Your task to perform on an android device: delete browsing data in the chrome app Image 0: 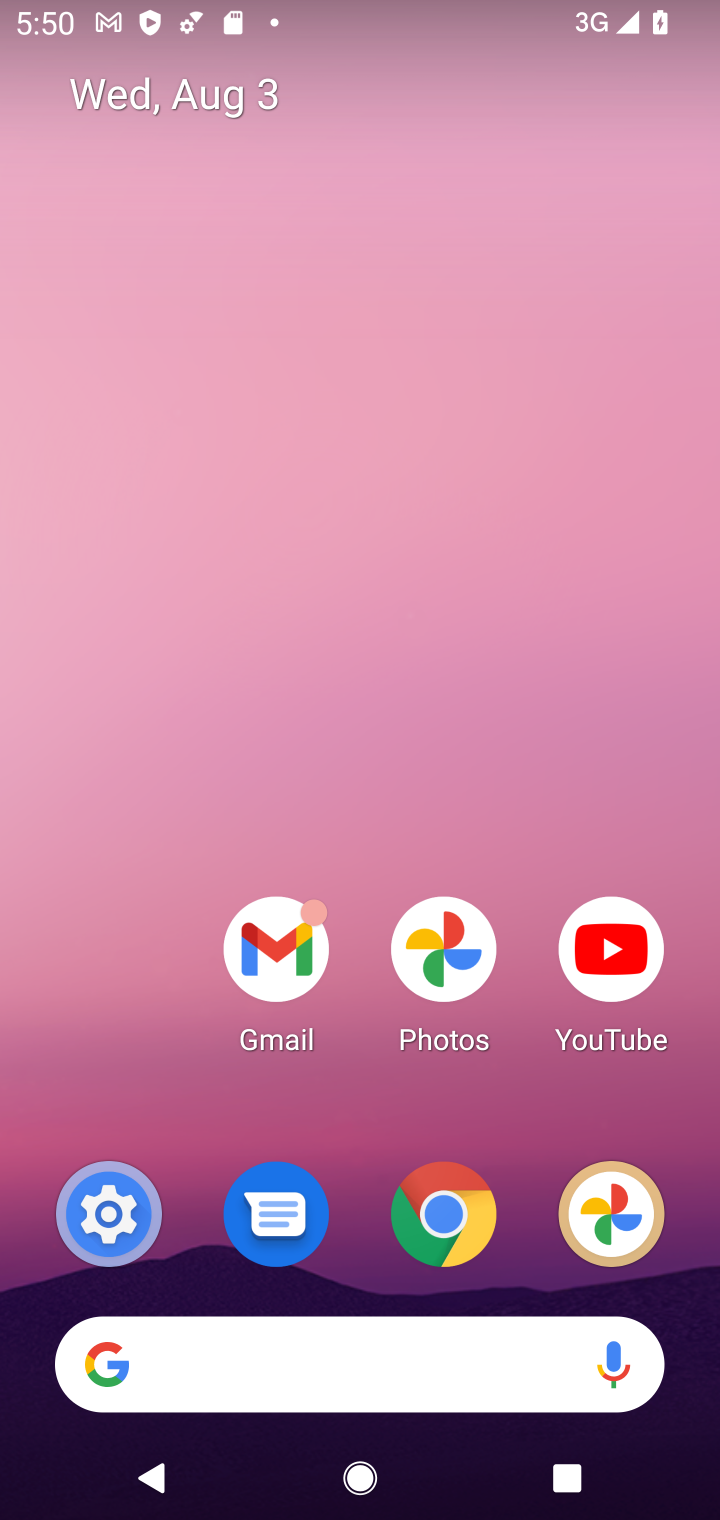
Step 0: click (424, 1212)
Your task to perform on an android device: delete browsing data in the chrome app Image 1: 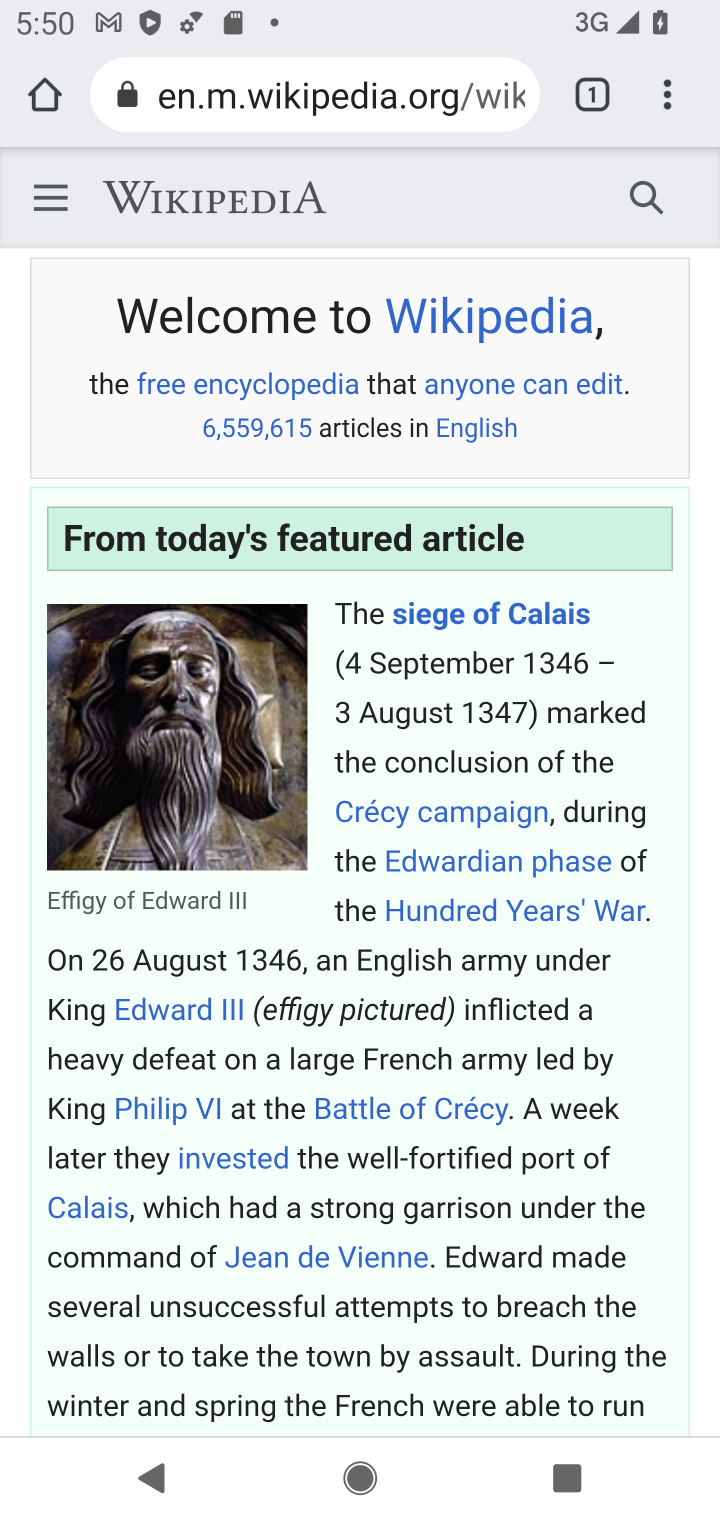
Step 1: click (665, 74)
Your task to perform on an android device: delete browsing data in the chrome app Image 2: 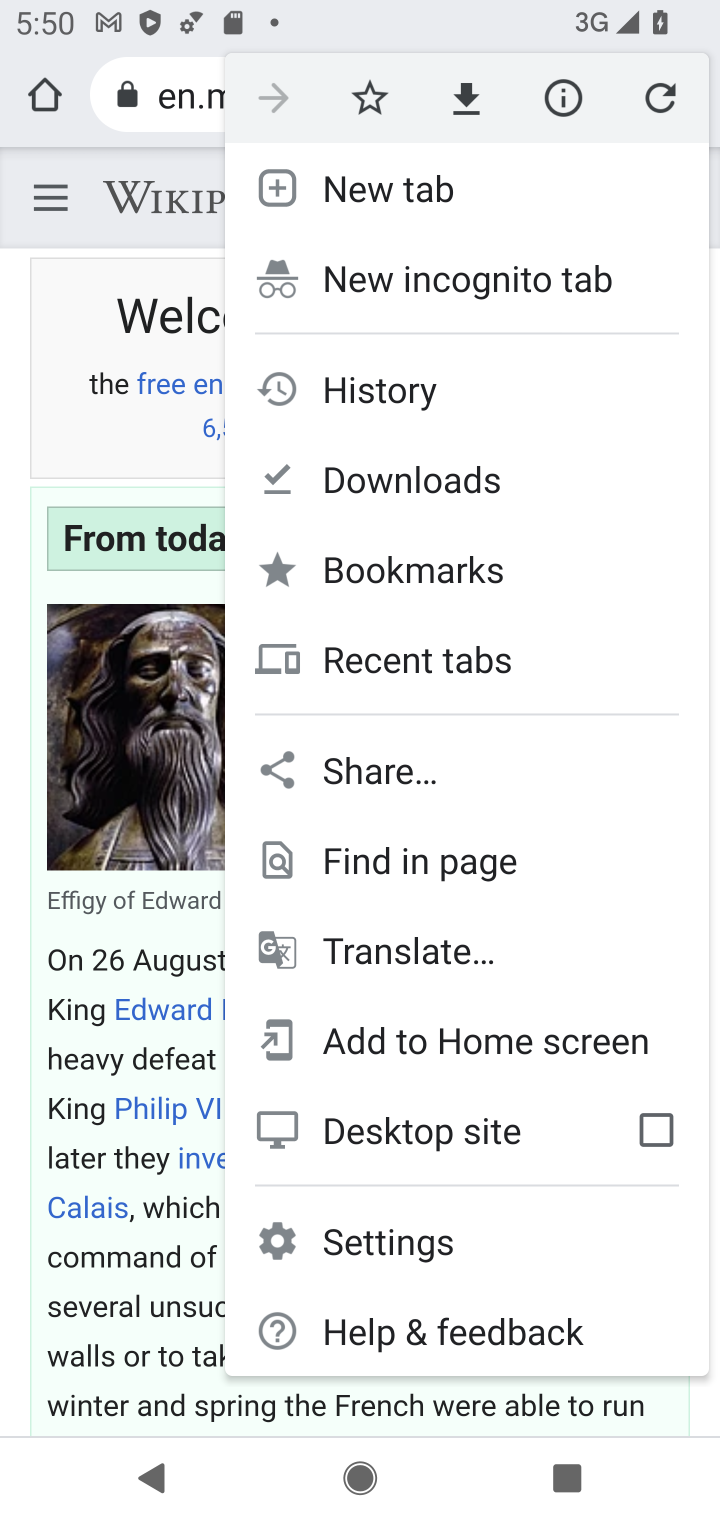
Step 2: click (433, 406)
Your task to perform on an android device: delete browsing data in the chrome app Image 3: 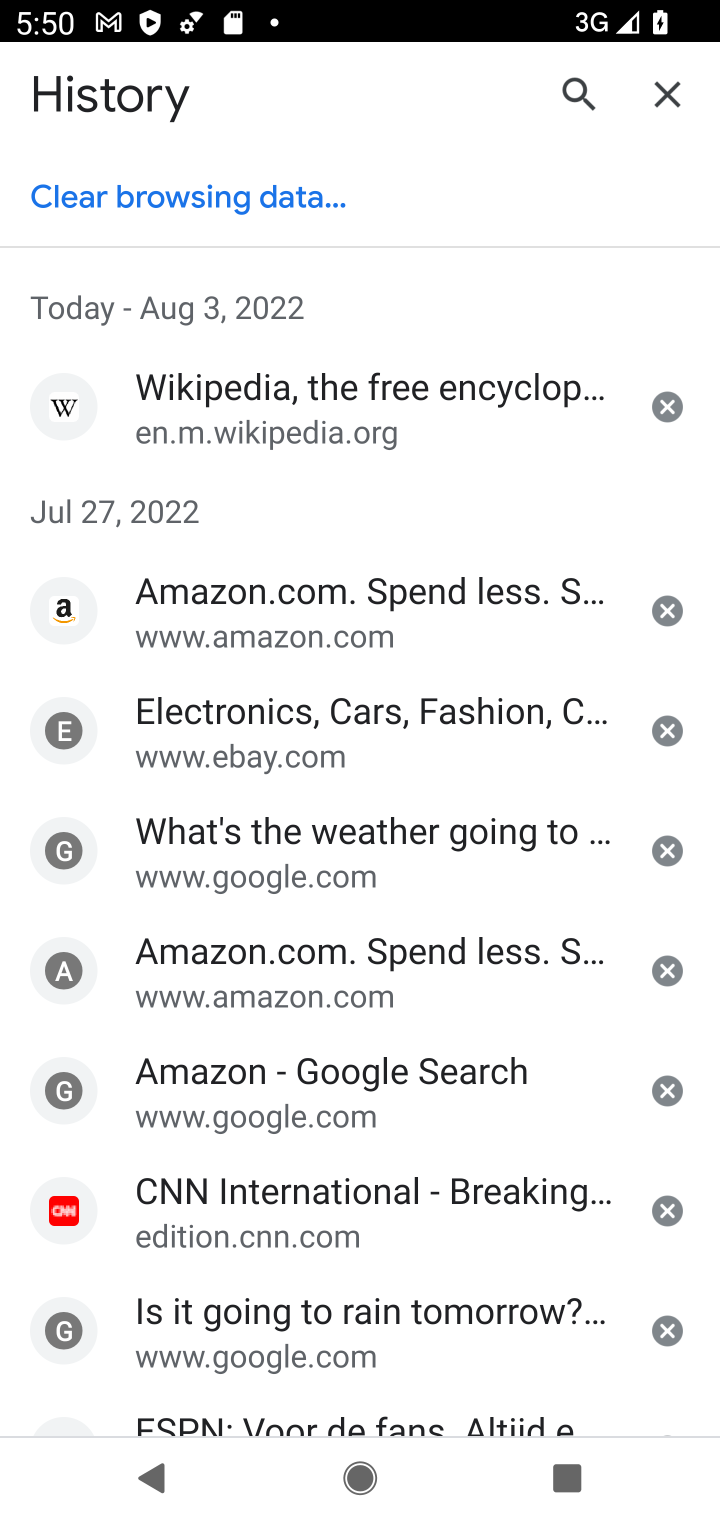
Step 3: click (258, 204)
Your task to perform on an android device: delete browsing data in the chrome app Image 4: 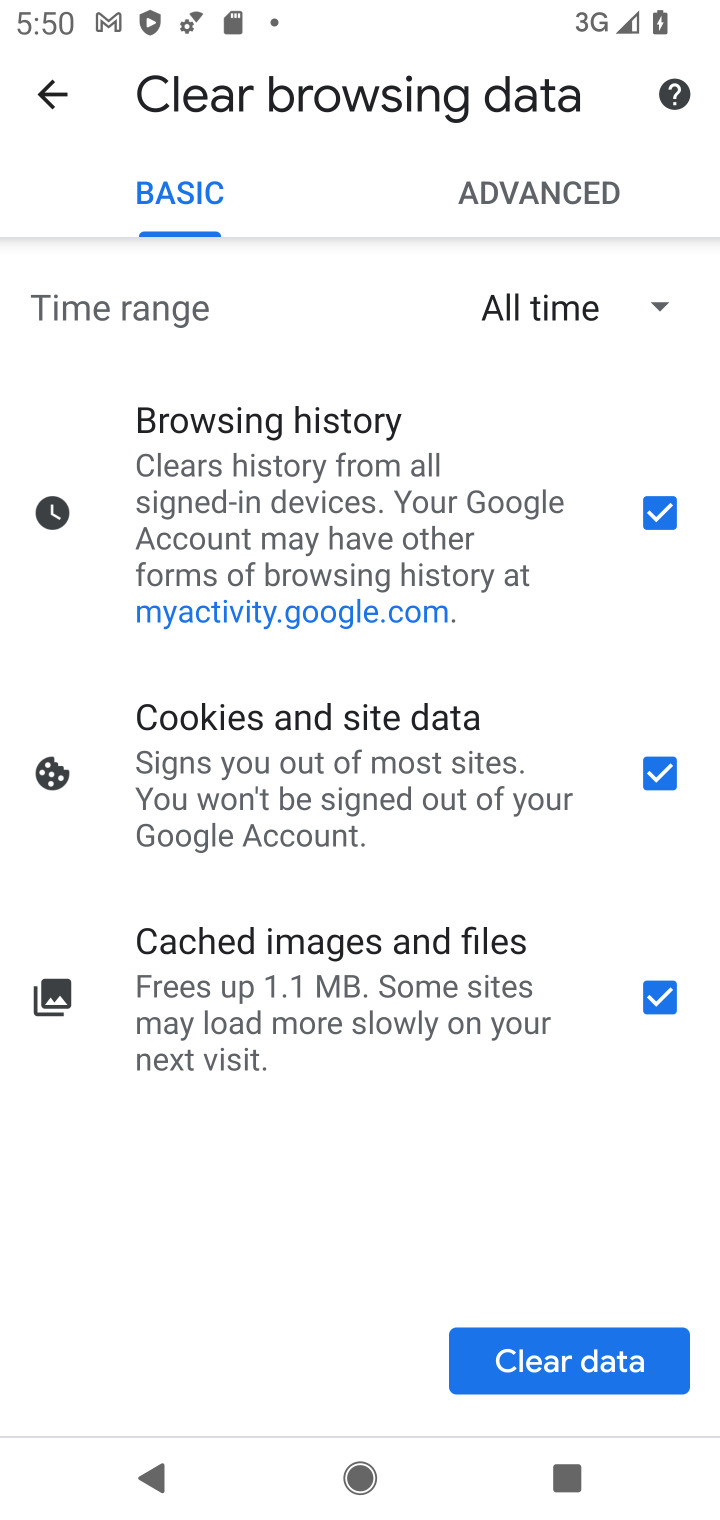
Step 4: click (598, 1346)
Your task to perform on an android device: delete browsing data in the chrome app Image 5: 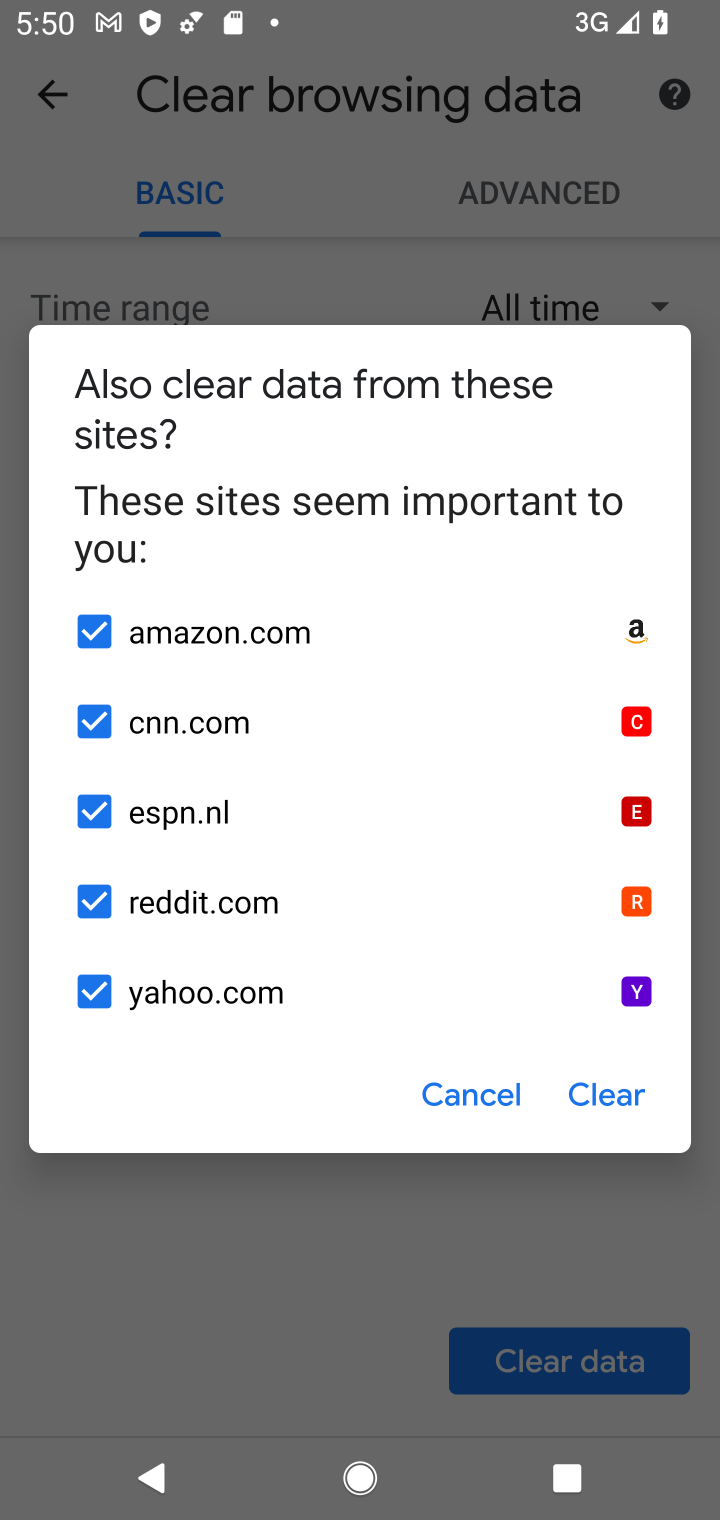
Step 5: click (613, 1112)
Your task to perform on an android device: delete browsing data in the chrome app Image 6: 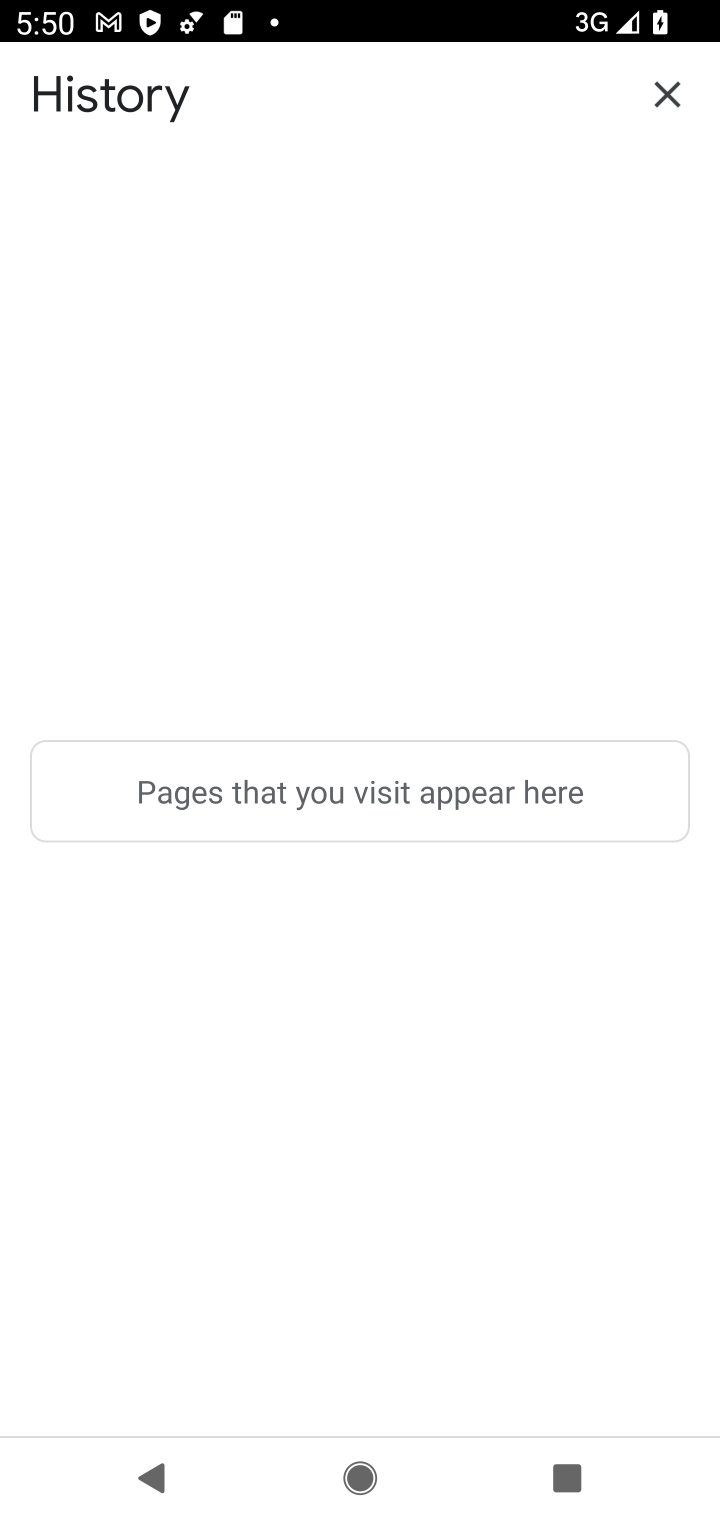
Step 6: task complete